Your task to perform on an android device: Show me popular videos on Youtube Image 0: 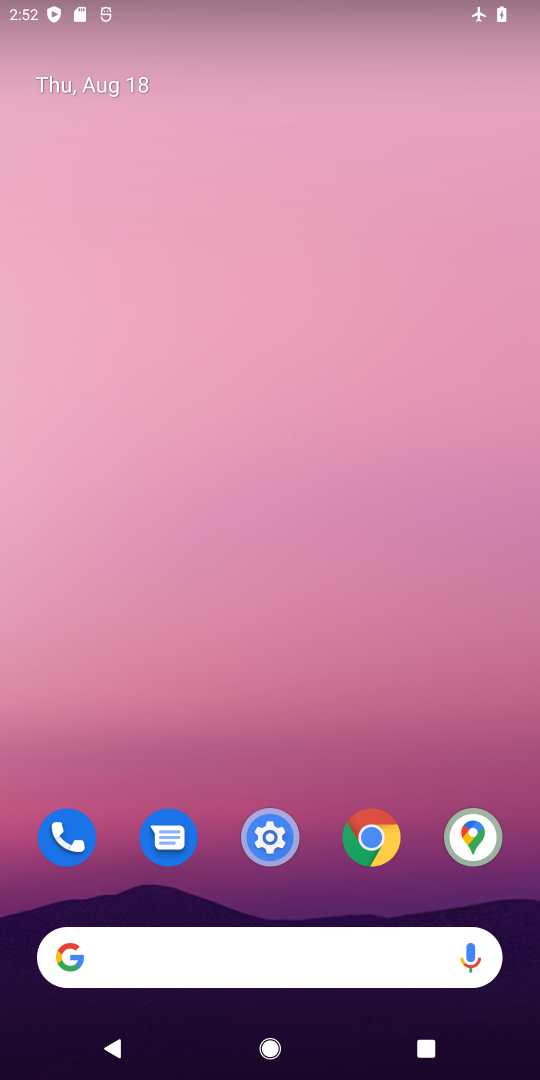
Step 0: drag from (319, 873) to (427, 44)
Your task to perform on an android device: Show me popular videos on Youtube Image 1: 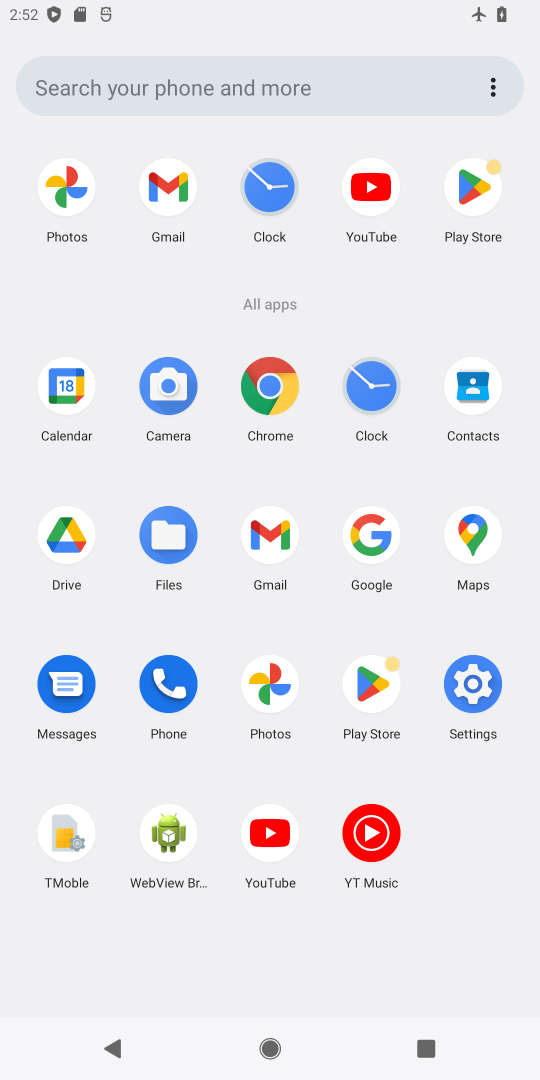
Step 1: click (268, 829)
Your task to perform on an android device: Show me popular videos on Youtube Image 2: 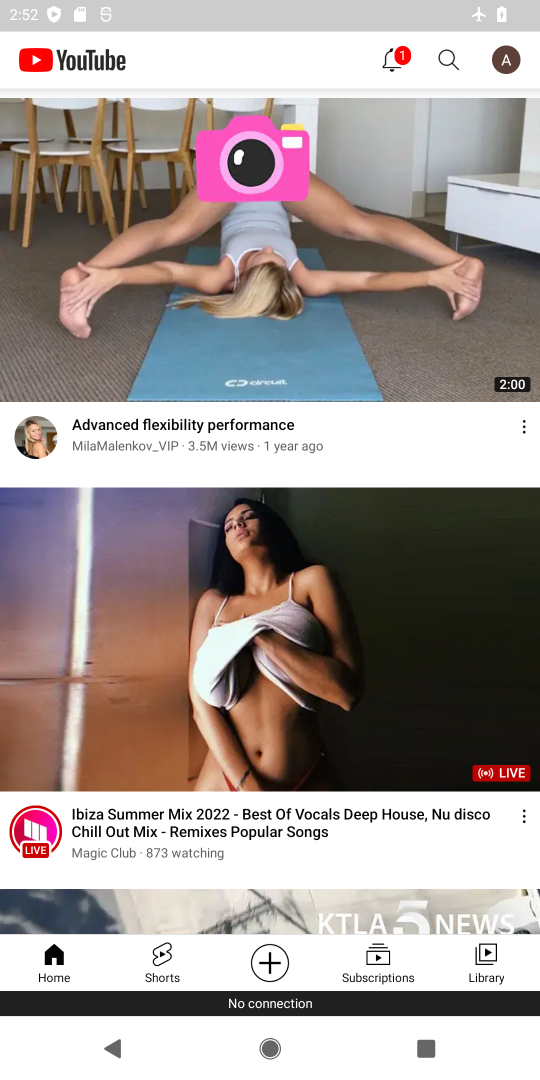
Step 2: drag from (158, 165) to (227, 684)
Your task to perform on an android device: Show me popular videos on Youtube Image 3: 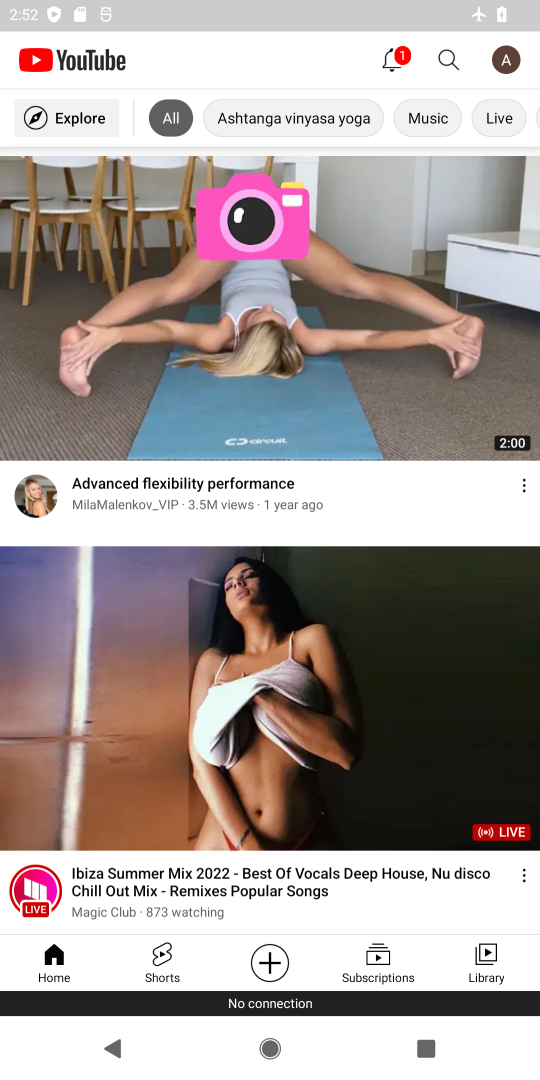
Step 3: click (87, 120)
Your task to perform on an android device: Show me popular videos on Youtube Image 4: 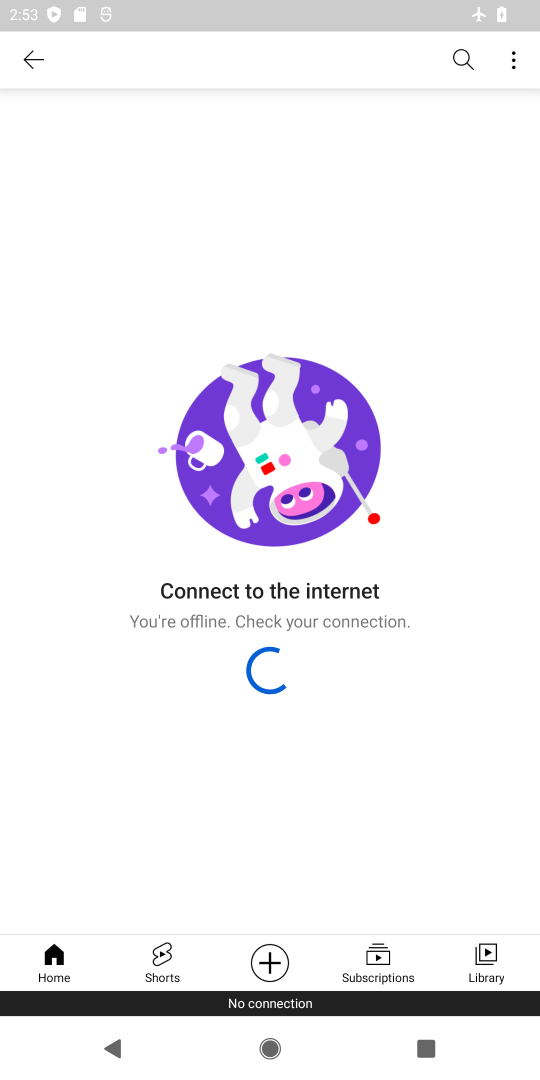
Step 4: task complete